Your task to perform on an android device: Open a new private tab in Chrome Image 0: 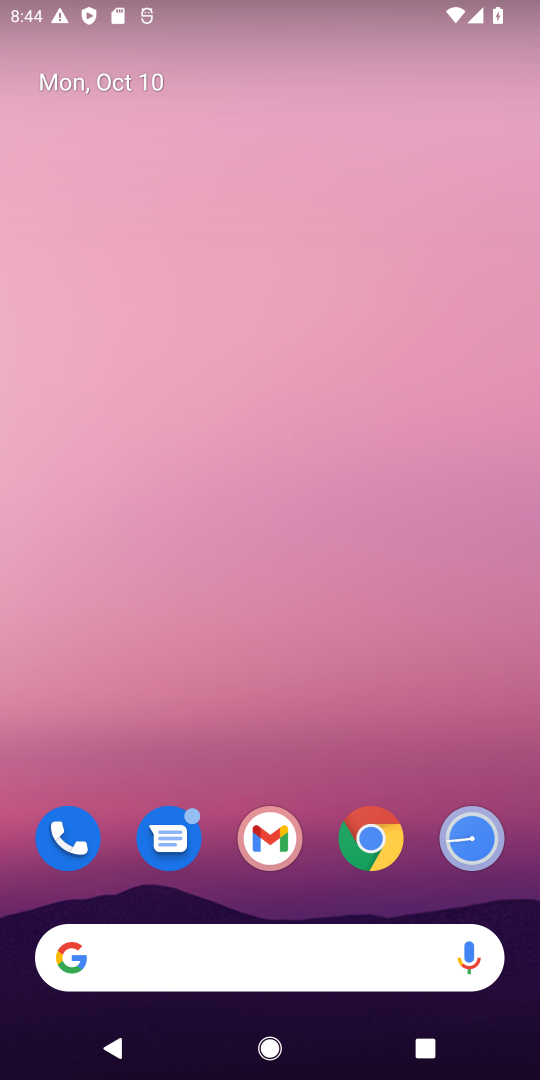
Step 0: click (373, 847)
Your task to perform on an android device: Open a new private tab in Chrome Image 1: 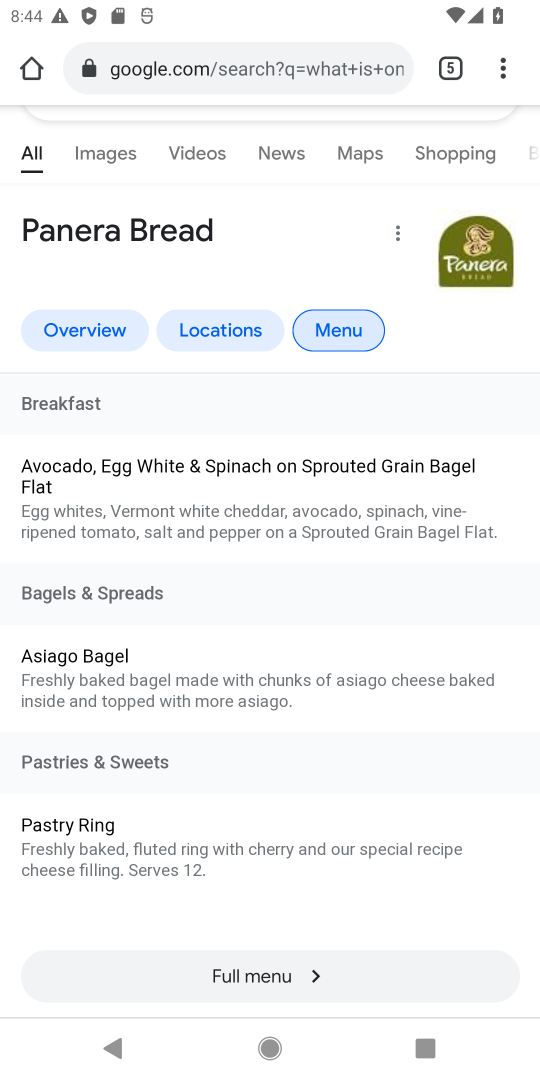
Step 1: task complete